Your task to perform on an android device: Open the calendar and show me this week's events? Image 0: 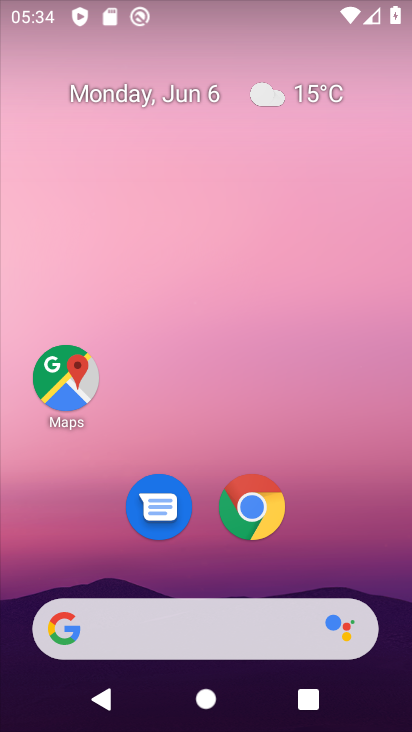
Step 0: drag from (257, 539) to (289, 1)
Your task to perform on an android device: Open the calendar and show me this week's events? Image 1: 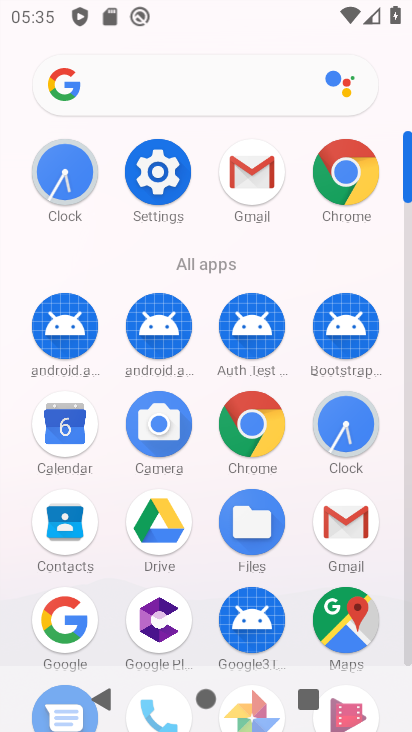
Step 1: click (76, 435)
Your task to perform on an android device: Open the calendar and show me this week's events? Image 2: 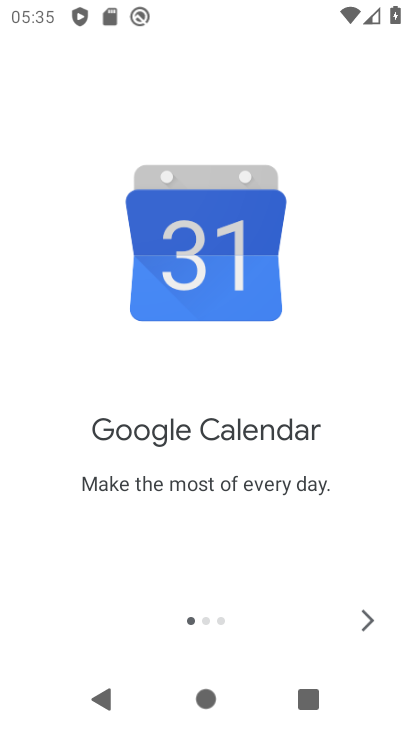
Step 2: click (363, 616)
Your task to perform on an android device: Open the calendar and show me this week's events? Image 3: 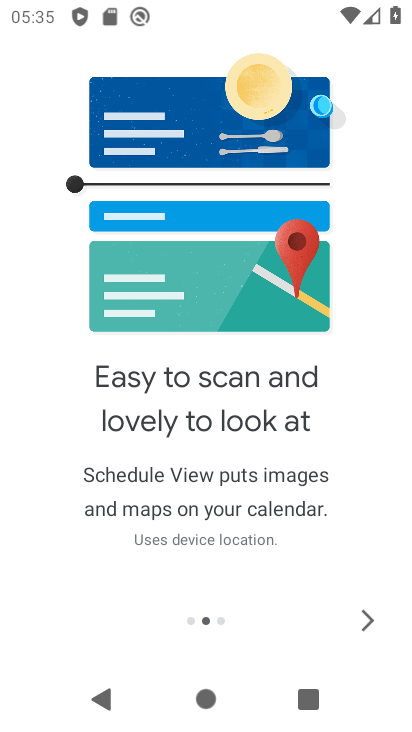
Step 3: click (363, 616)
Your task to perform on an android device: Open the calendar and show me this week's events? Image 4: 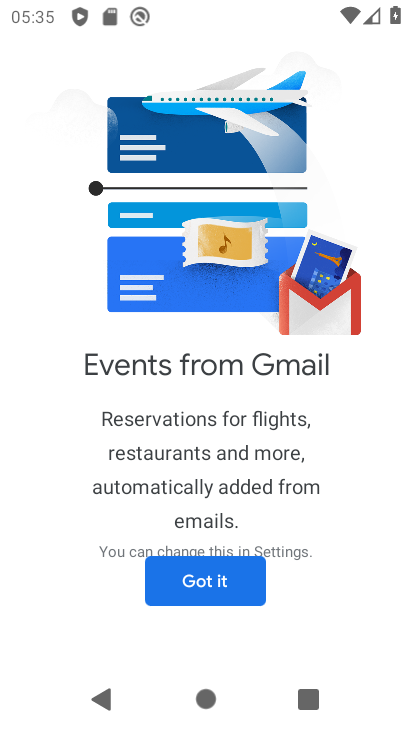
Step 4: click (196, 578)
Your task to perform on an android device: Open the calendar and show me this week's events? Image 5: 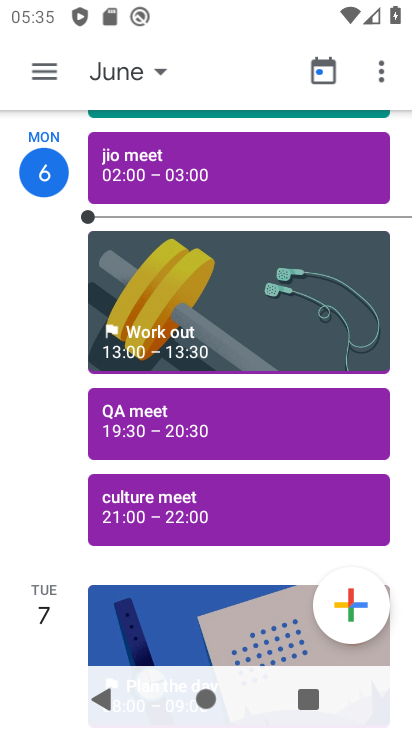
Step 5: click (46, 76)
Your task to perform on an android device: Open the calendar and show me this week's events? Image 6: 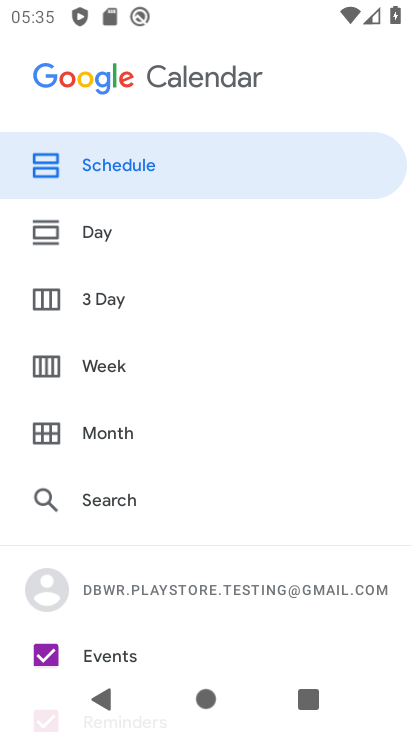
Step 6: click (107, 363)
Your task to perform on an android device: Open the calendar and show me this week's events? Image 7: 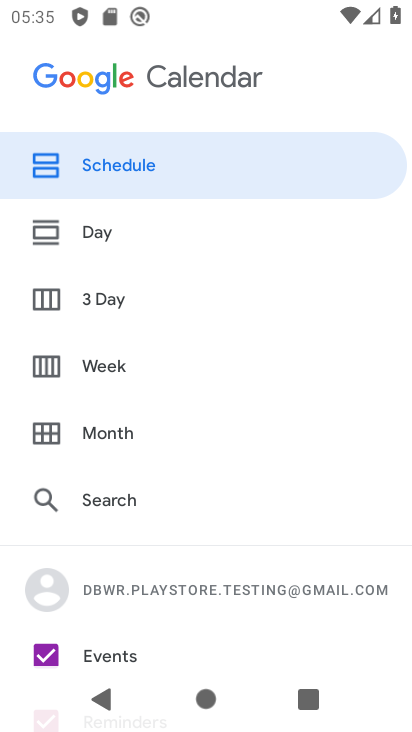
Step 7: click (125, 365)
Your task to perform on an android device: Open the calendar and show me this week's events? Image 8: 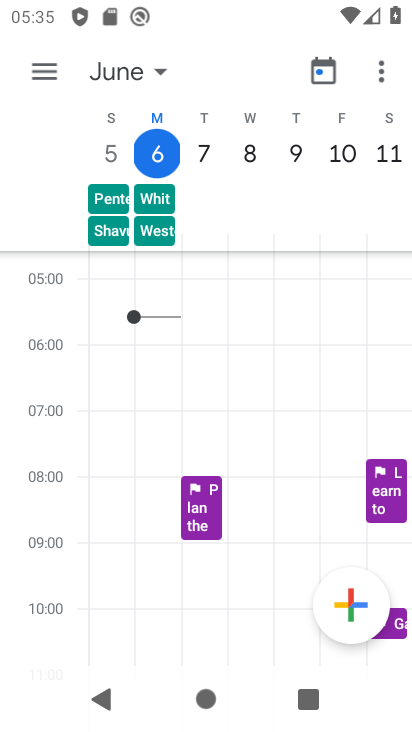
Step 8: task complete